Your task to perform on an android device: Open settings on Google Maps Image 0: 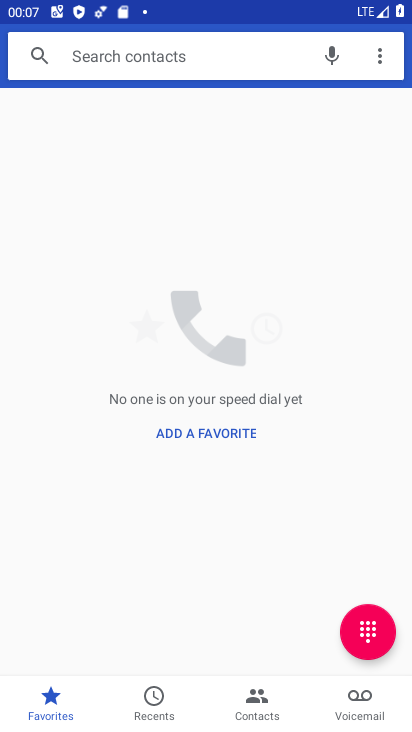
Step 0: press home button
Your task to perform on an android device: Open settings on Google Maps Image 1: 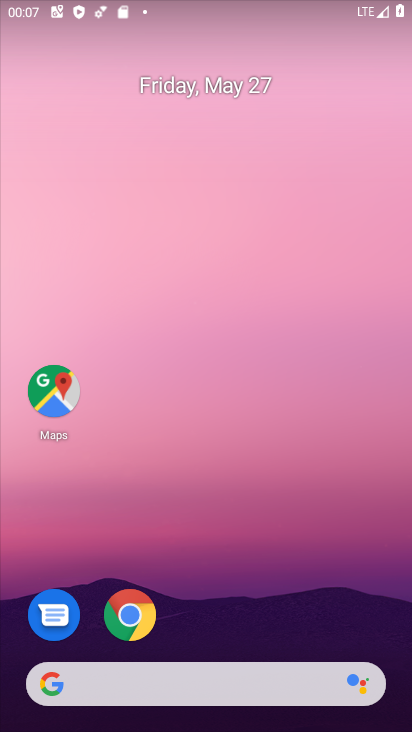
Step 1: drag from (254, 594) to (292, 15)
Your task to perform on an android device: Open settings on Google Maps Image 2: 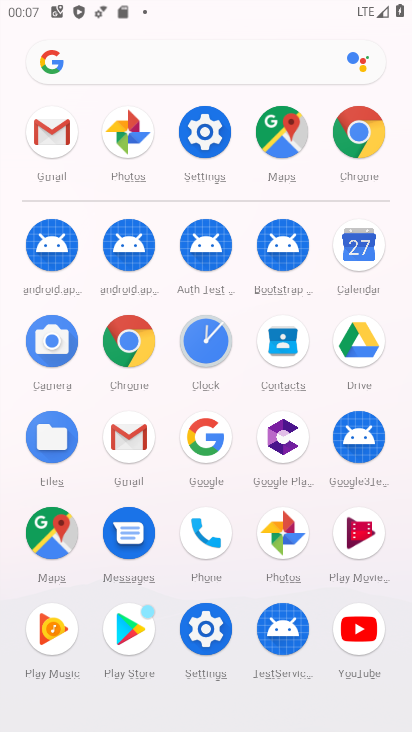
Step 2: click (309, 136)
Your task to perform on an android device: Open settings on Google Maps Image 3: 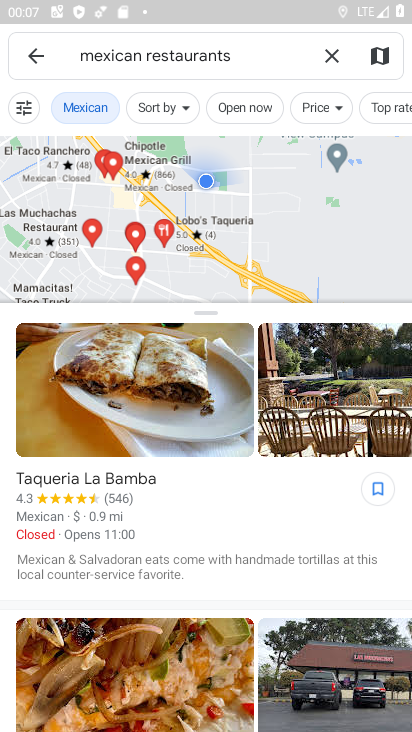
Step 3: click (38, 45)
Your task to perform on an android device: Open settings on Google Maps Image 4: 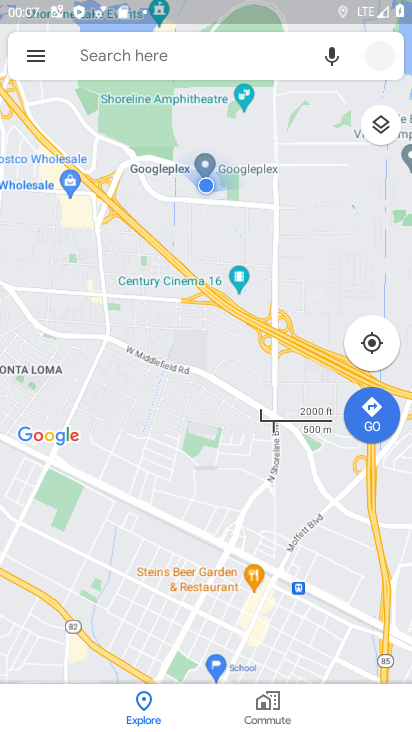
Step 4: click (38, 45)
Your task to perform on an android device: Open settings on Google Maps Image 5: 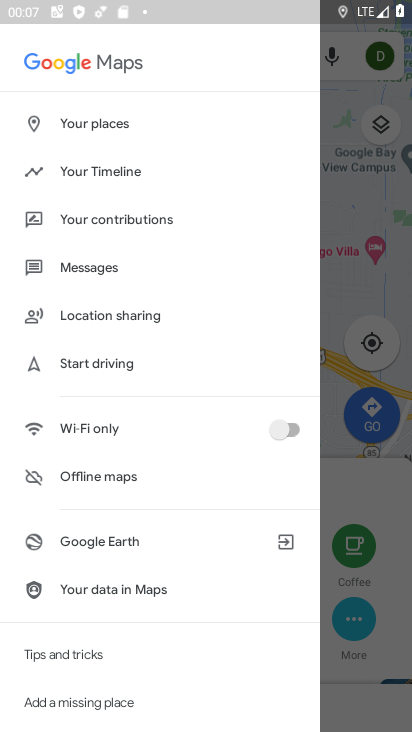
Step 5: drag from (137, 686) to (199, 42)
Your task to perform on an android device: Open settings on Google Maps Image 6: 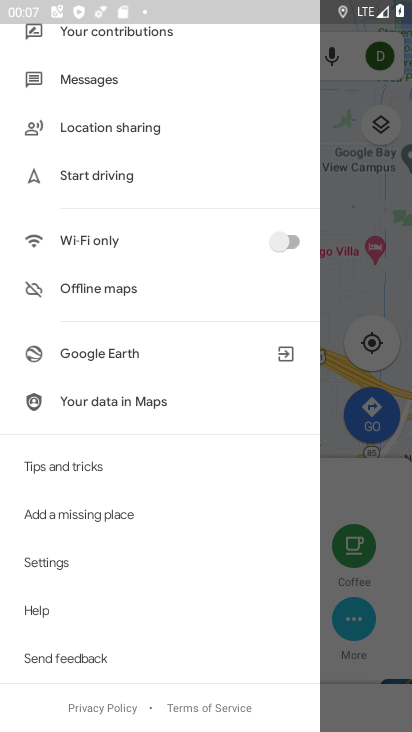
Step 6: click (35, 570)
Your task to perform on an android device: Open settings on Google Maps Image 7: 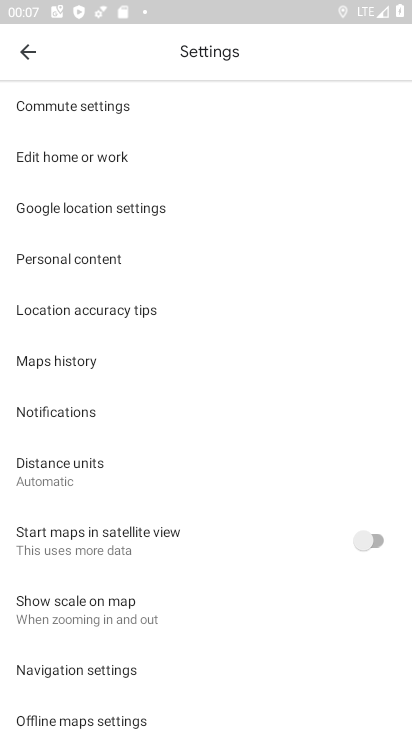
Step 7: task complete